Your task to perform on an android device: Open Google Maps Image 0: 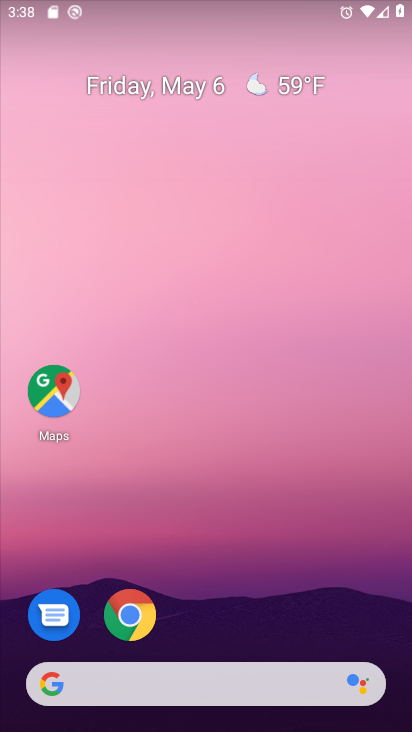
Step 0: click (47, 397)
Your task to perform on an android device: Open Google Maps Image 1: 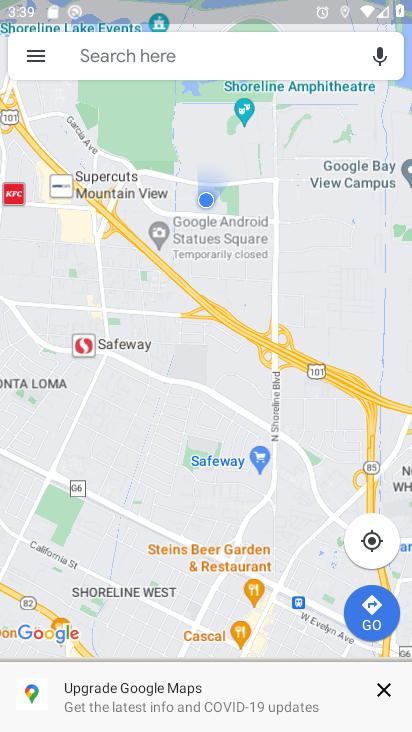
Step 1: task complete